Your task to perform on an android device: Show me popular videos on Youtube Image 0: 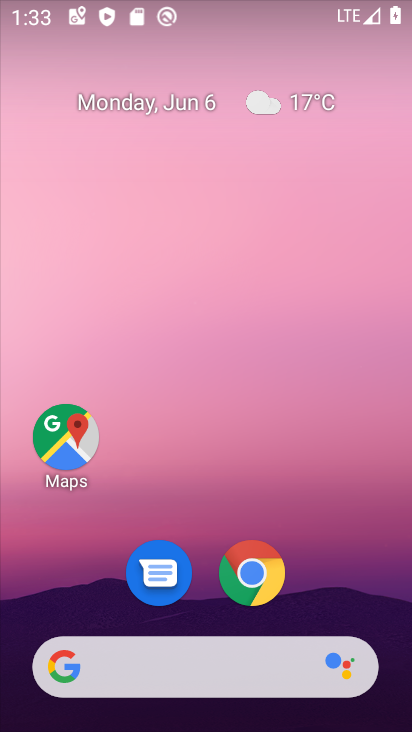
Step 0: drag from (374, 614) to (371, 179)
Your task to perform on an android device: Show me popular videos on Youtube Image 1: 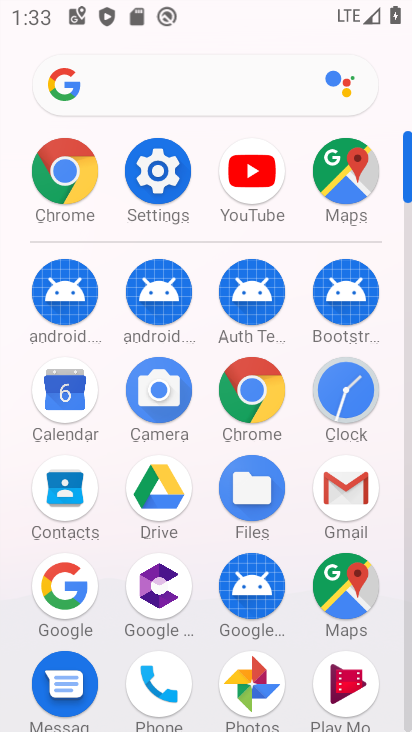
Step 1: click (261, 177)
Your task to perform on an android device: Show me popular videos on Youtube Image 2: 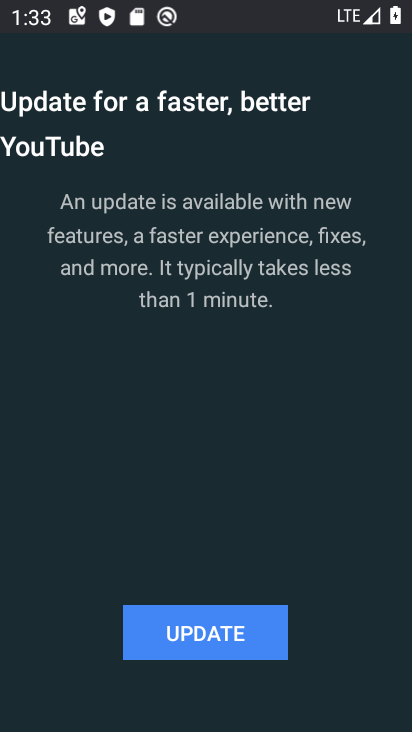
Step 2: click (220, 633)
Your task to perform on an android device: Show me popular videos on Youtube Image 3: 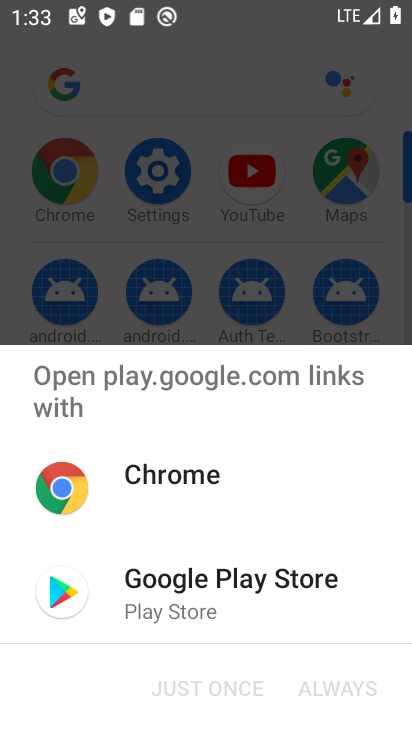
Step 3: click (176, 570)
Your task to perform on an android device: Show me popular videos on Youtube Image 4: 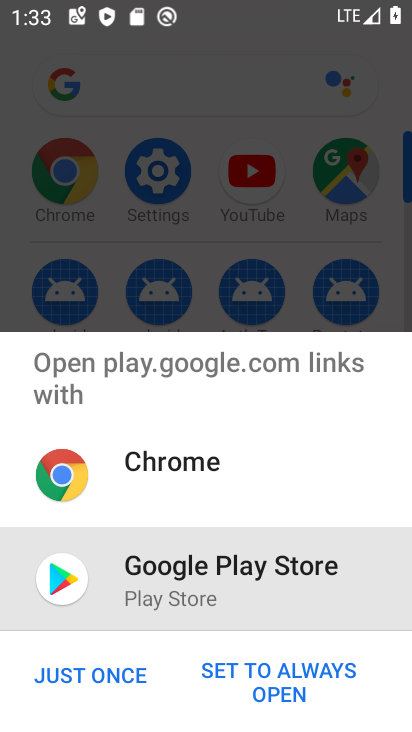
Step 4: click (118, 681)
Your task to perform on an android device: Show me popular videos on Youtube Image 5: 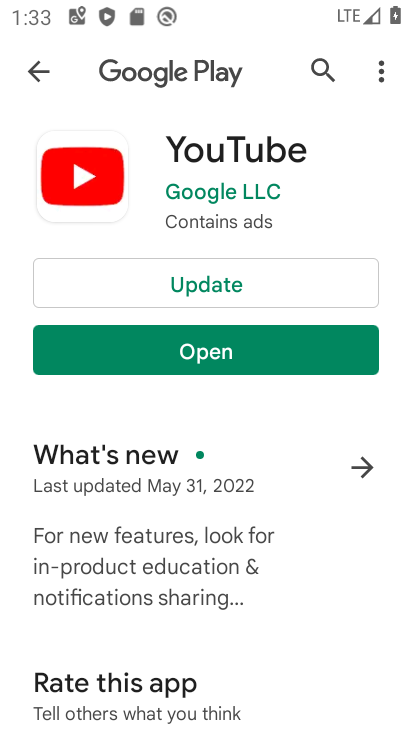
Step 5: click (292, 283)
Your task to perform on an android device: Show me popular videos on Youtube Image 6: 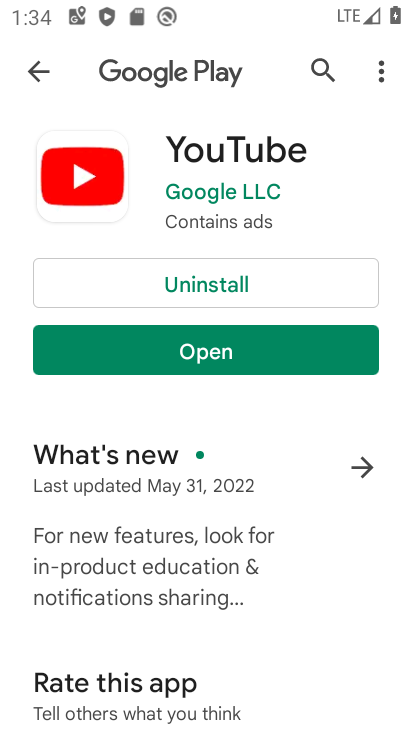
Step 6: click (283, 340)
Your task to perform on an android device: Show me popular videos on Youtube Image 7: 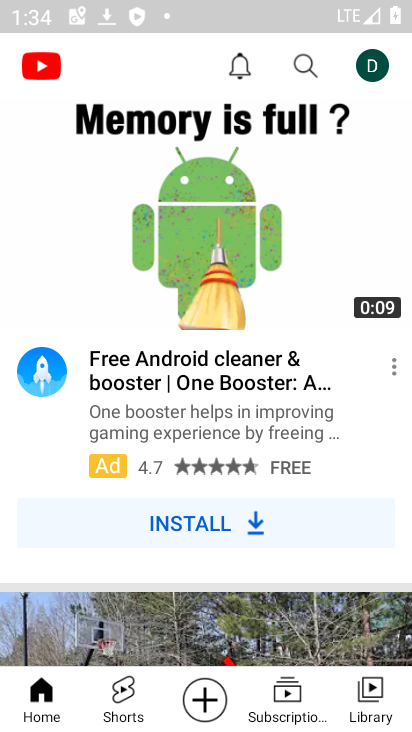
Step 7: task complete